Your task to perform on an android device: move a message to another label in the gmail app Image 0: 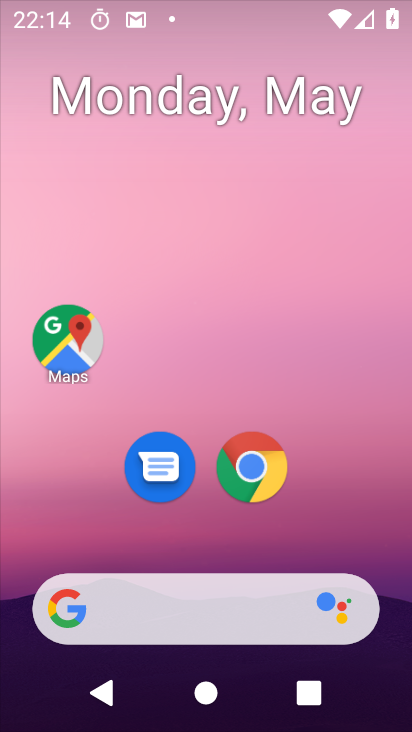
Step 0: press home button
Your task to perform on an android device: move a message to another label in the gmail app Image 1: 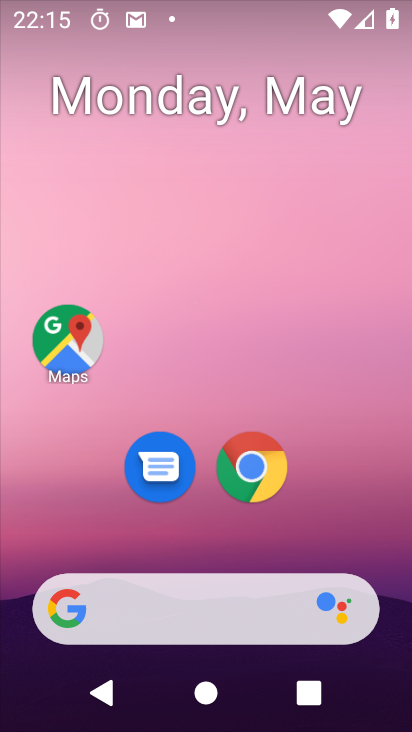
Step 1: drag from (237, 655) to (240, 214)
Your task to perform on an android device: move a message to another label in the gmail app Image 2: 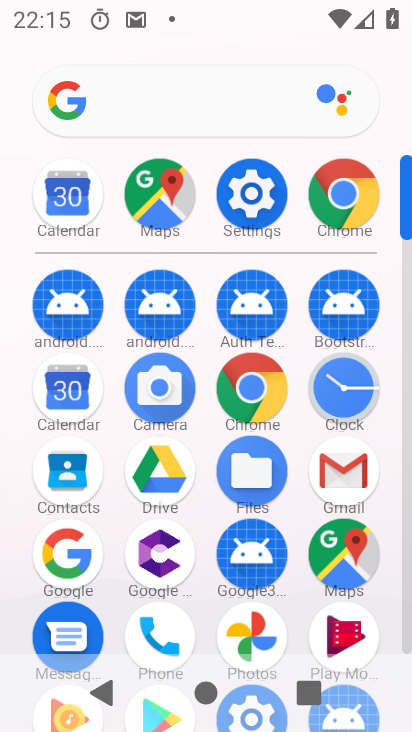
Step 2: click (337, 462)
Your task to perform on an android device: move a message to another label in the gmail app Image 3: 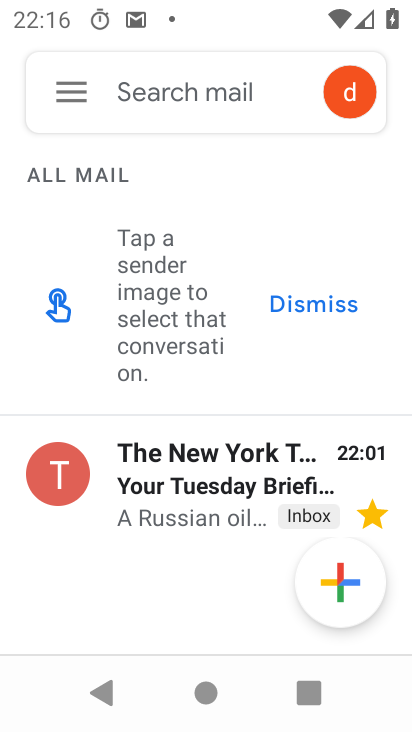
Step 3: click (317, 304)
Your task to perform on an android device: move a message to another label in the gmail app Image 4: 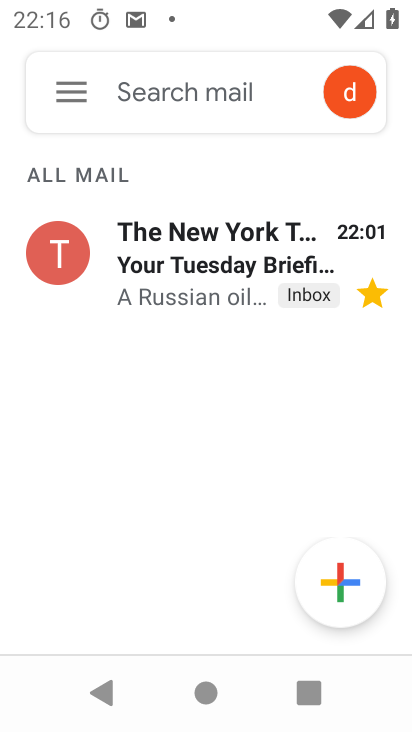
Step 4: click (71, 103)
Your task to perform on an android device: move a message to another label in the gmail app Image 5: 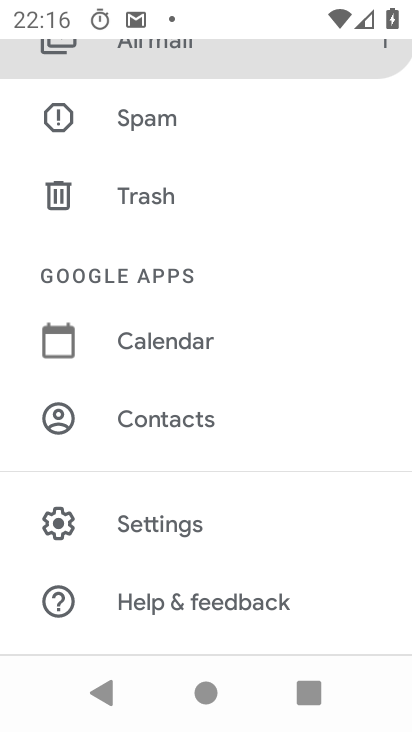
Step 5: click (149, 532)
Your task to perform on an android device: move a message to another label in the gmail app Image 6: 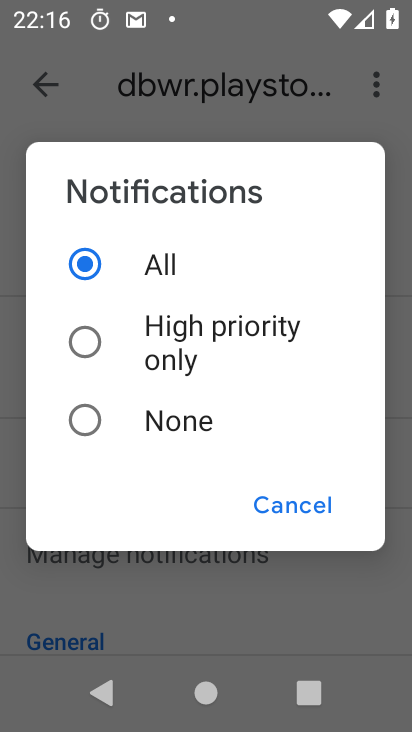
Step 6: click (280, 491)
Your task to perform on an android device: move a message to another label in the gmail app Image 7: 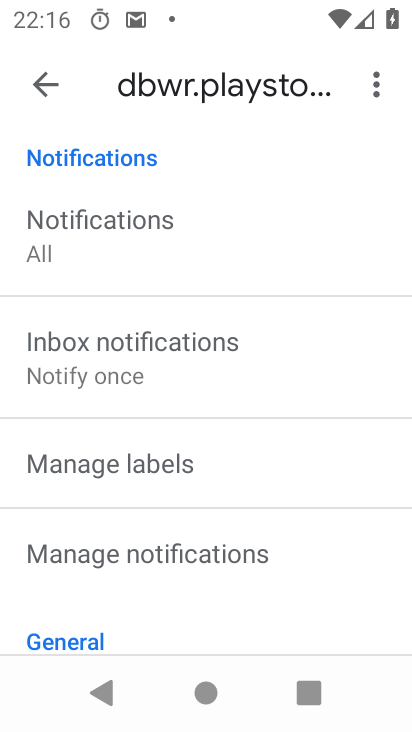
Step 7: click (178, 455)
Your task to perform on an android device: move a message to another label in the gmail app Image 8: 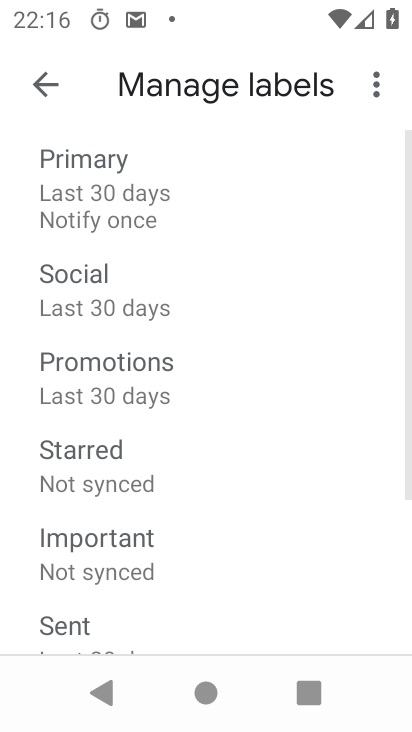
Step 8: click (134, 323)
Your task to perform on an android device: move a message to another label in the gmail app Image 9: 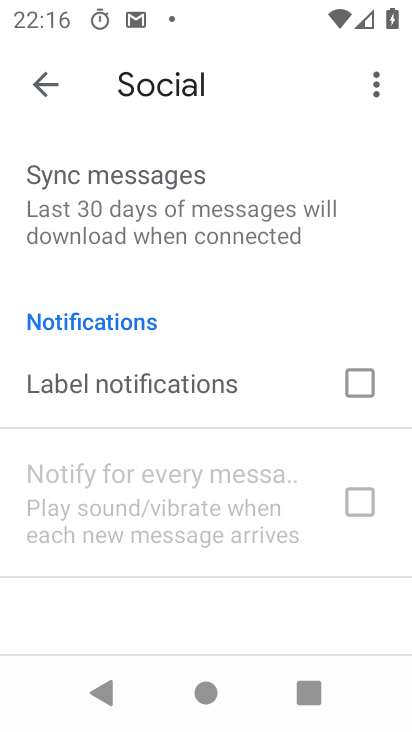
Step 9: task complete